Your task to perform on an android device: Open Yahoo.com Image 0: 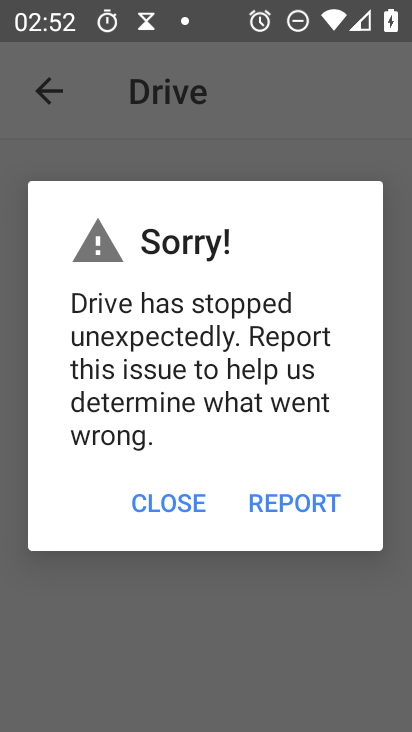
Step 0: press home button
Your task to perform on an android device: Open Yahoo.com Image 1: 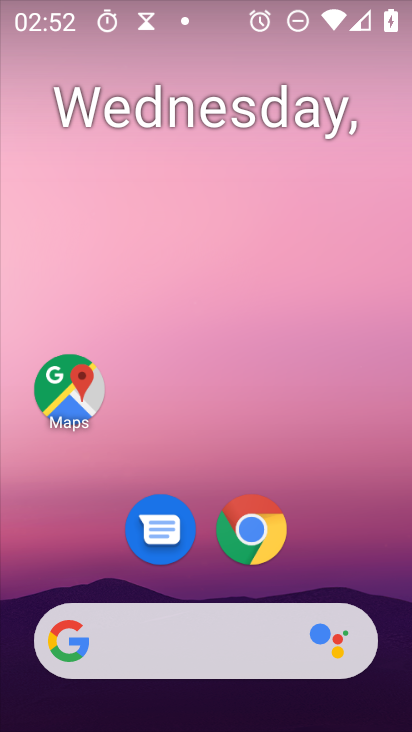
Step 1: drag from (250, 566) to (410, 11)
Your task to perform on an android device: Open Yahoo.com Image 2: 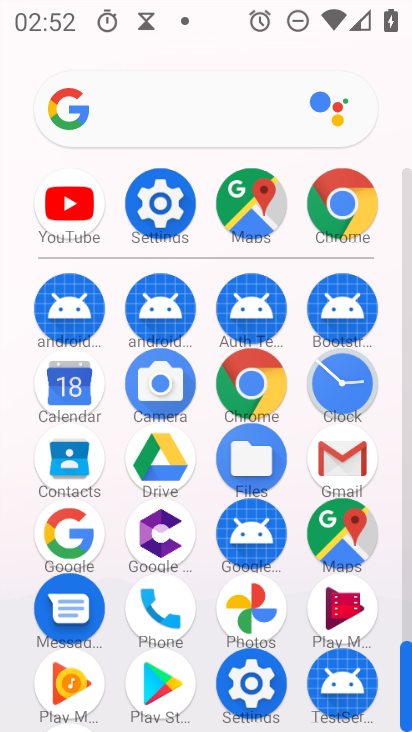
Step 2: click (248, 385)
Your task to perform on an android device: Open Yahoo.com Image 3: 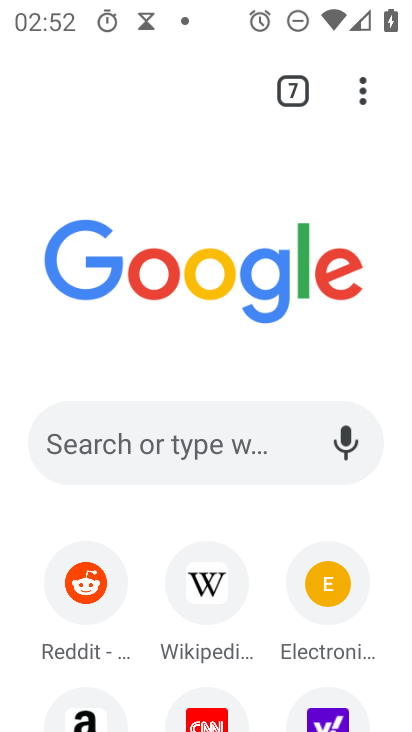
Step 3: click (329, 725)
Your task to perform on an android device: Open Yahoo.com Image 4: 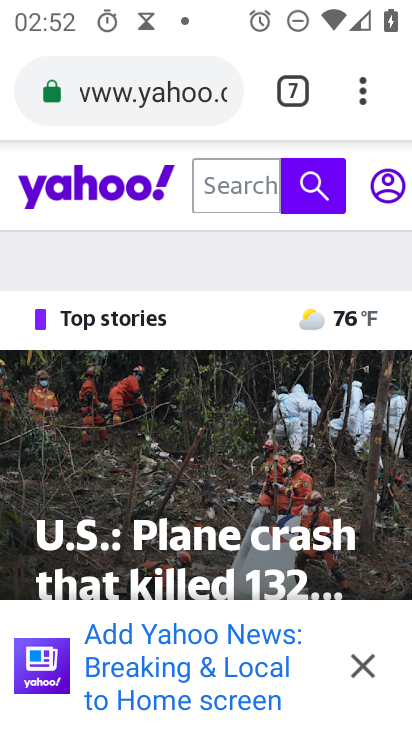
Step 4: task complete